Your task to perform on an android device: Open the stopwatch Image 0: 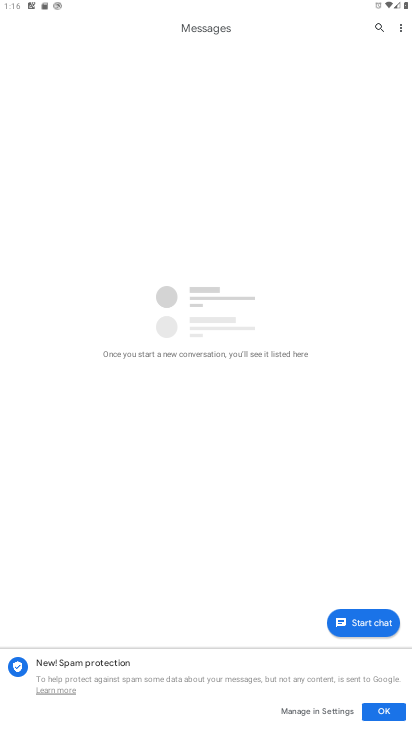
Step 0: press home button
Your task to perform on an android device: Open the stopwatch Image 1: 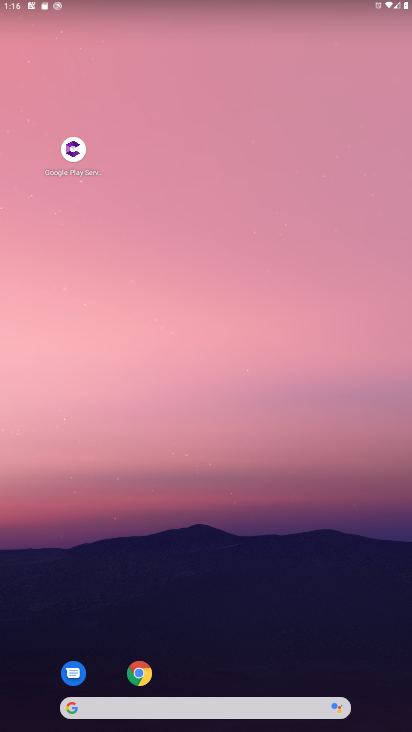
Step 1: drag from (203, 668) to (239, 372)
Your task to perform on an android device: Open the stopwatch Image 2: 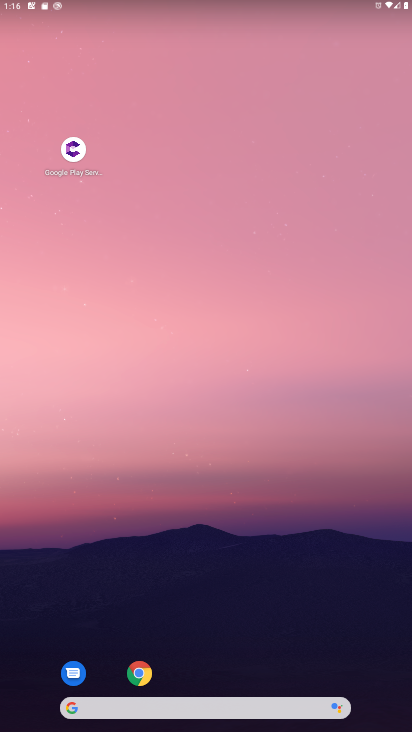
Step 2: drag from (213, 676) to (265, 225)
Your task to perform on an android device: Open the stopwatch Image 3: 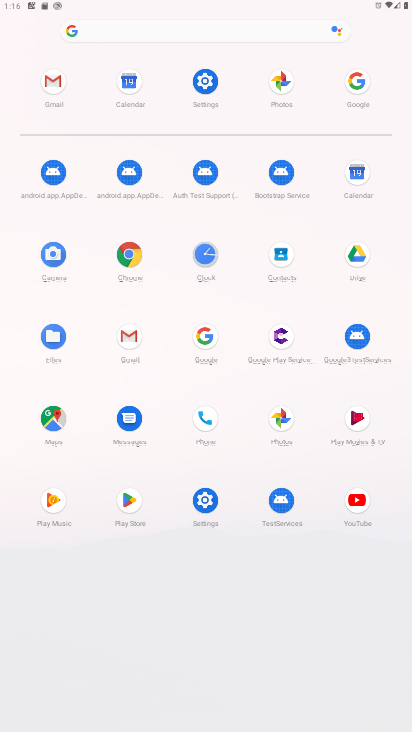
Step 3: click (213, 256)
Your task to perform on an android device: Open the stopwatch Image 4: 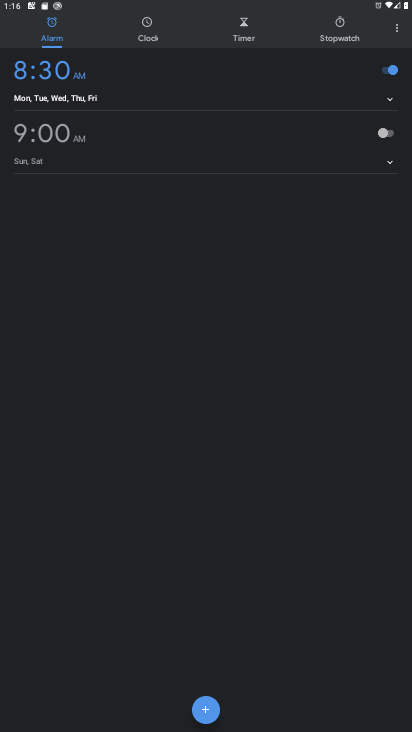
Step 4: click (342, 40)
Your task to perform on an android device: Open the stopwatch Image 5: 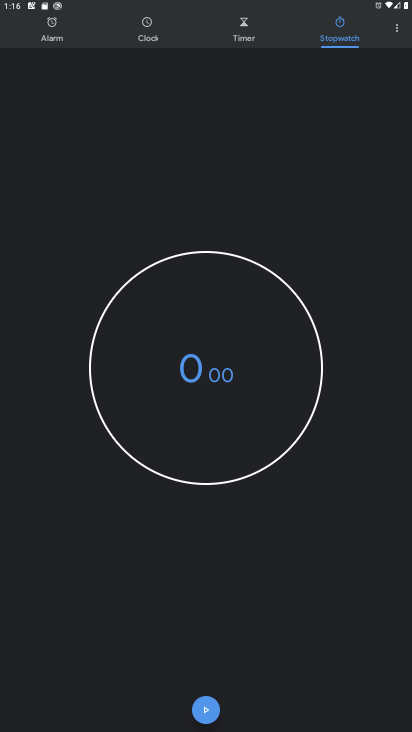
Step 5: task complete